Your task to perform on an android device: Open my contact list Image 0: 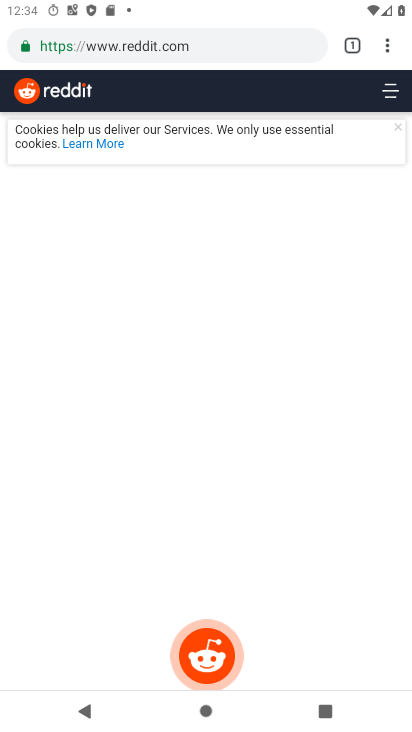
Step 0: press home button
Your task to perform on an android device: Open my contact list Image 1: 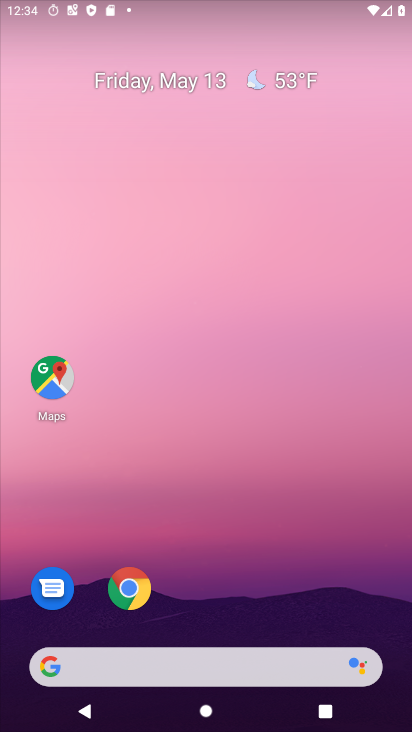
Step 1: drag from (369, 587) to (315, 98)
Your task to perform on an android device: Open my contact list Image 2: 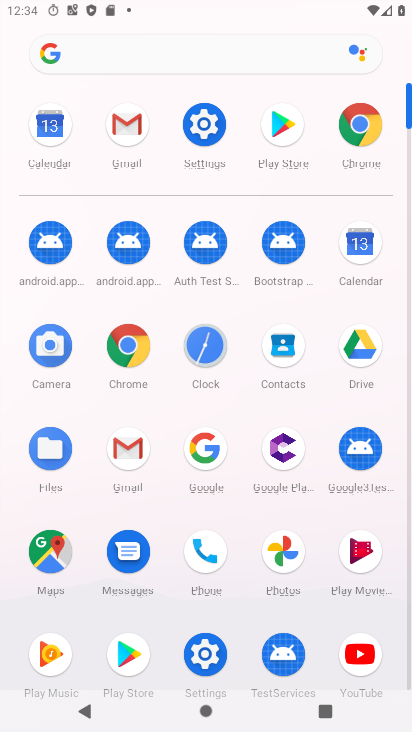
Step 2: click (275, 354)
Your task to perform on an android device: Open my contact list Image 3: 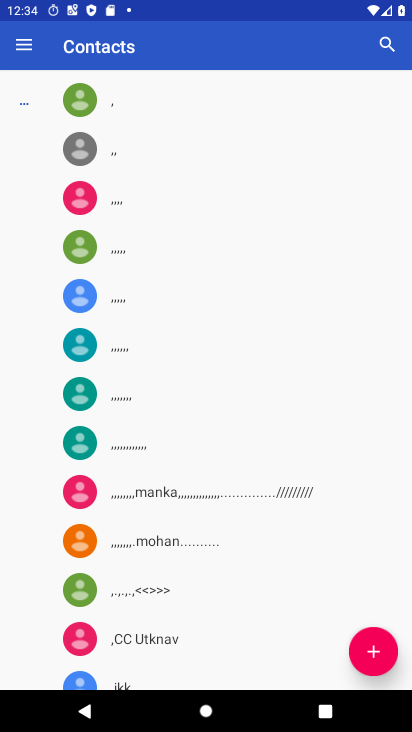
Step 3: task complete